Your task to perform on an android device: Open Google Maps Image 0: 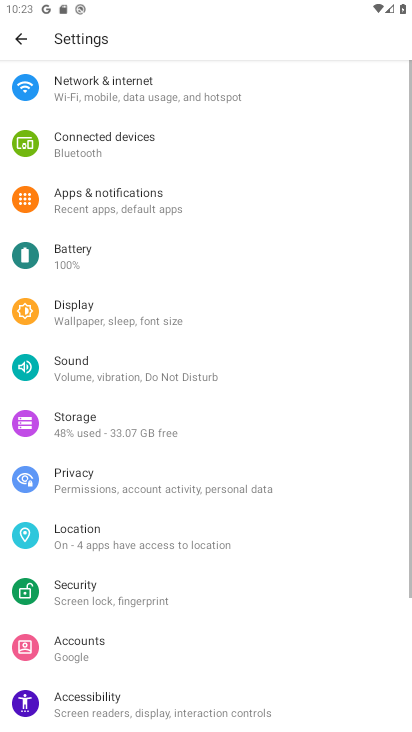
Step 0: press home button
Your task to perform on an android device: Open Google Maps Image 1: 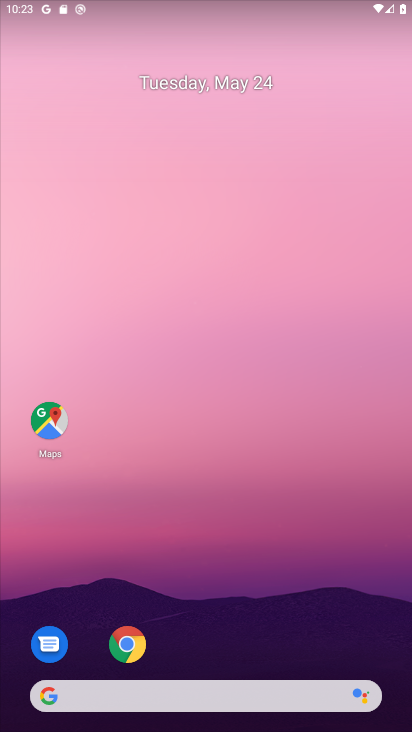
Step 1: click (44, 419)
Your task to perform on an android device: Open Google Maps Image 2: 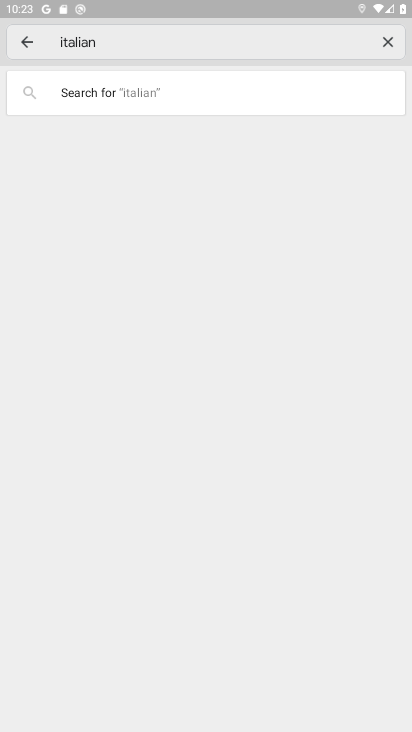
Step 2: click (382, 38)
Your task to perform on an android device: Open Google Maps Image 3: 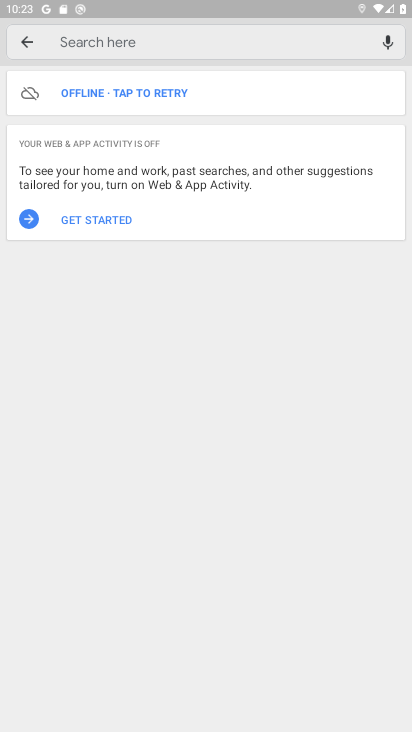
Step 3: click (101, 34)
Your task to perform on an android device: Open Google Maps Image 4: 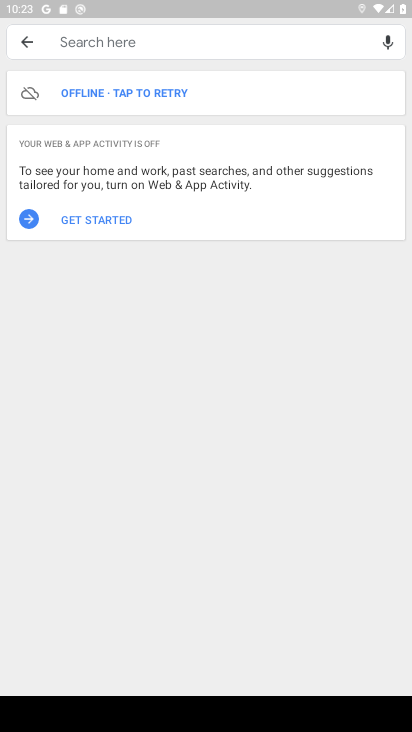
Step 4: click (22, 34)
Your task to perform on an android device: Open Google Maps Image 5: 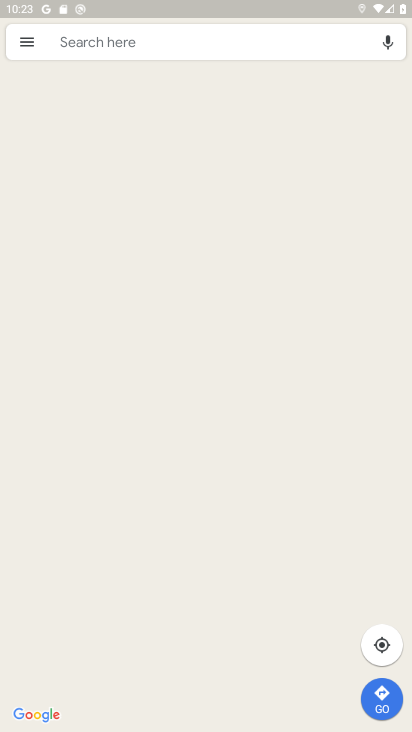
Step 5: task complete